Your task to perform on an android device: Search for "alienware aurora" on costco, select the first entry, add it to the cart, then select checkout. Image 0: 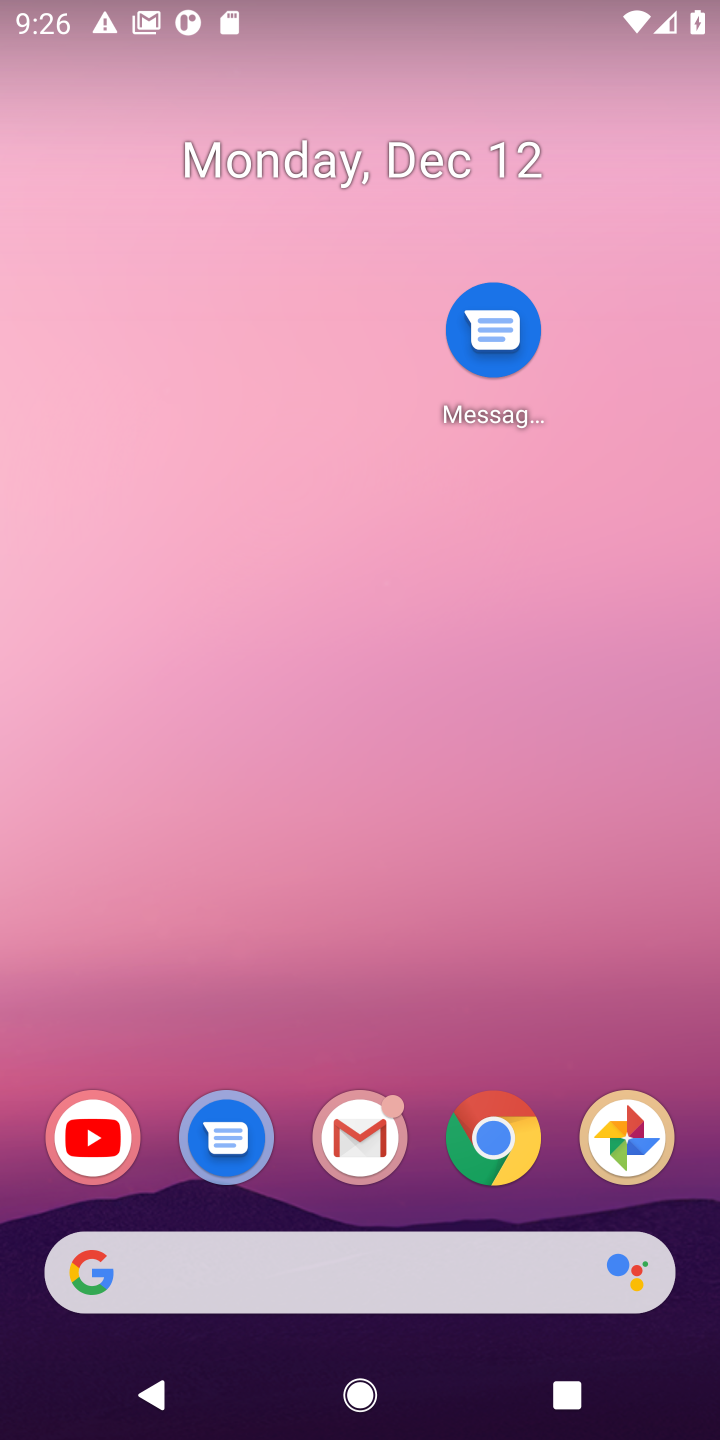
Step 0: drag from (293, 983) to (291, 388)
Your task to perform on an android device: Search for "alienware aurora" on costco, select the first entry, add it to the cart, then select checkout. Image 1: 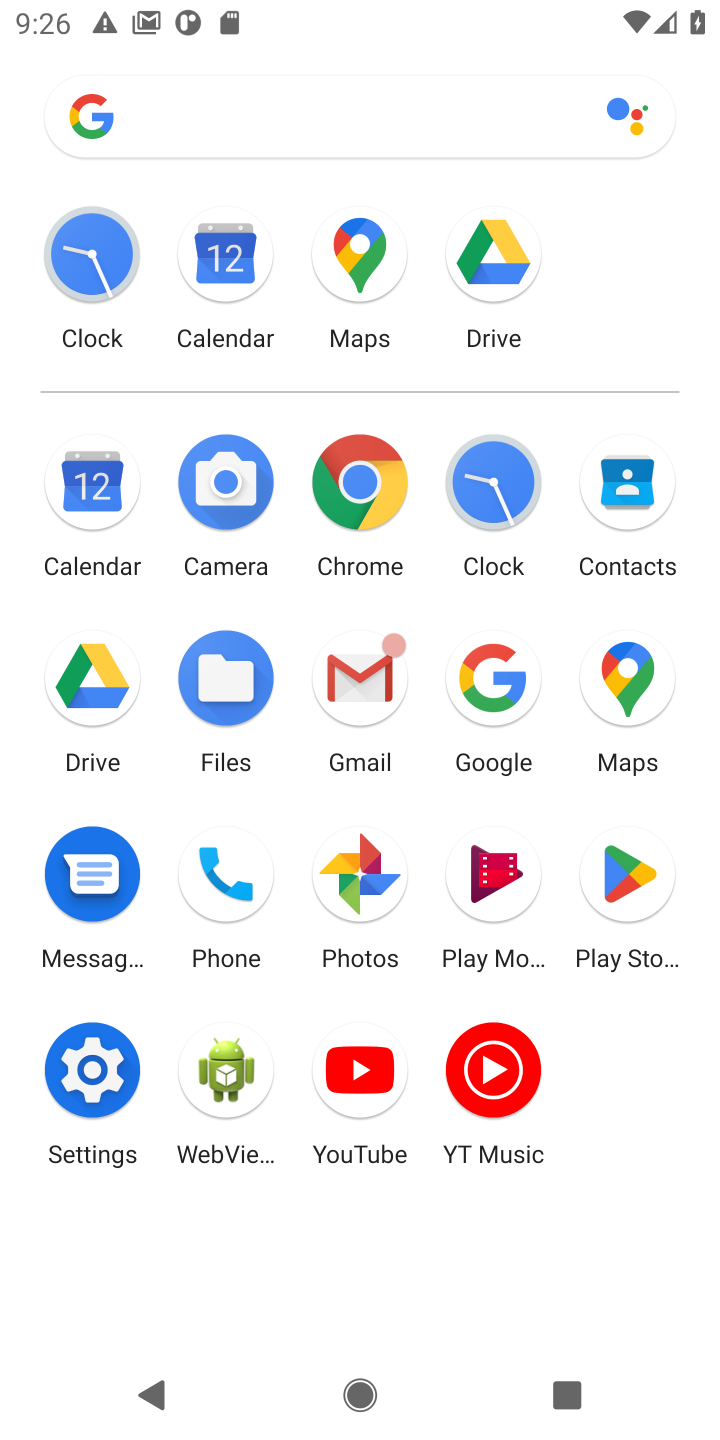
Step 1: click (480, 677)
Your task to perform on an android device: Search for "alienware aurora" on costco, select the first entry, add it to the cart, then select checkout. Image 2: 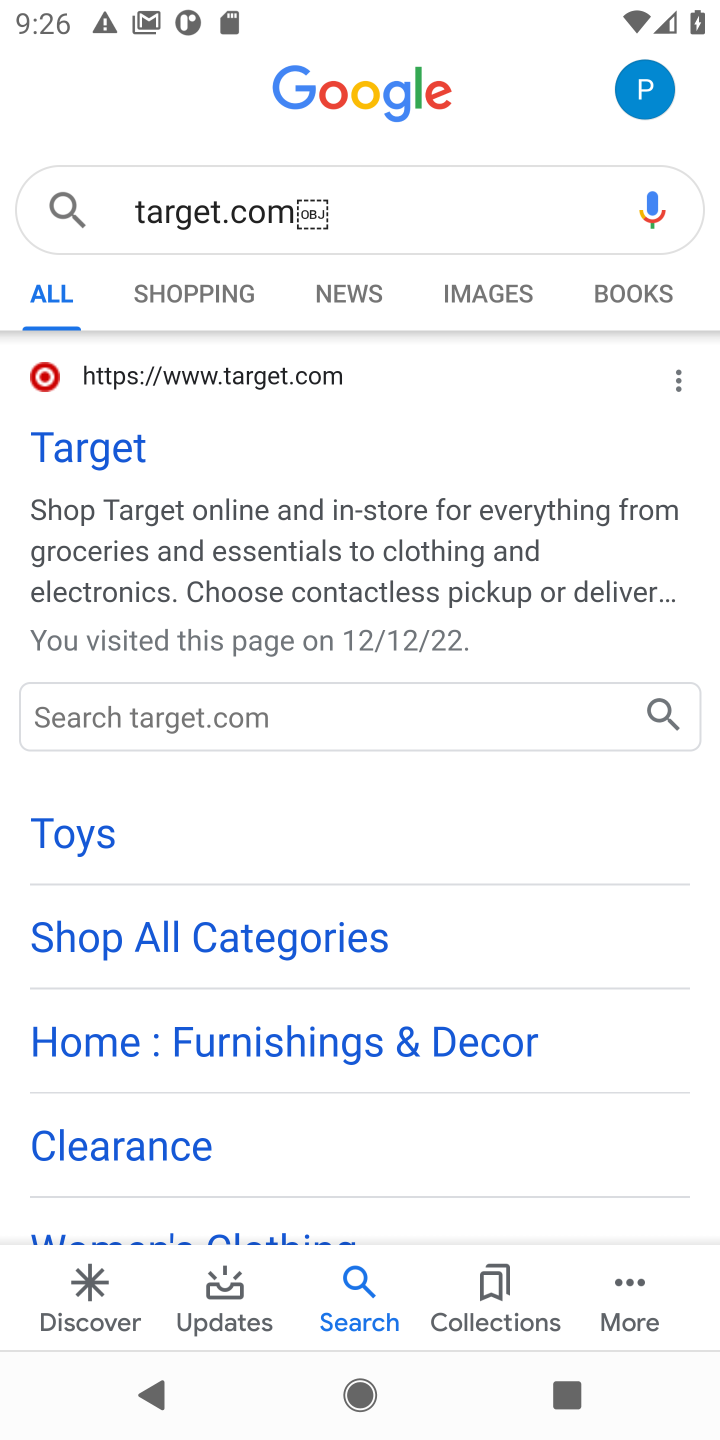
Step 2: click (197, 222)
Your task to perform on an android device: Search for "alienware aurora" on costco, select the first entry, add it to the cart, then select checkout. Image 3: 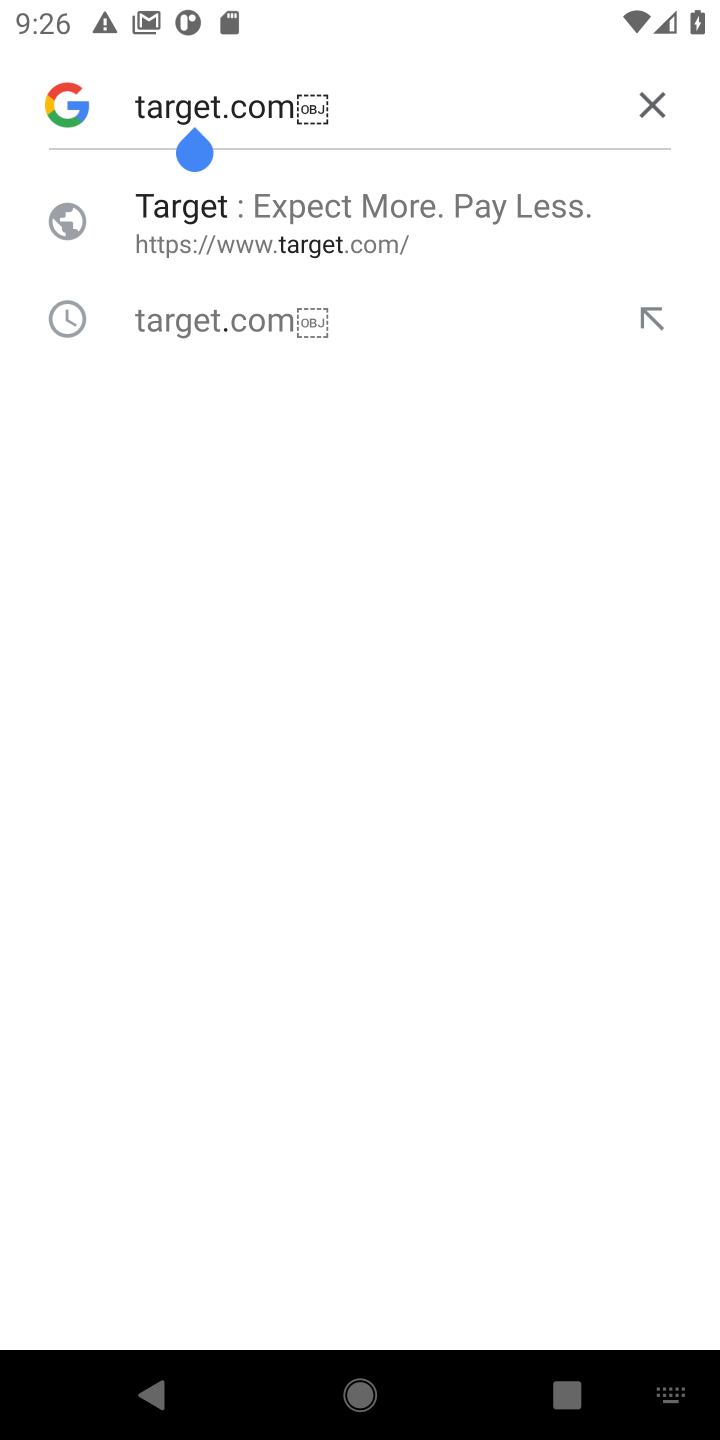
Step 3: click (657, 96)
Your task to perform on an android device: Search for "alienware aurora" on costco, select the first entry, add it to the cart, then select checkout. Image 4: 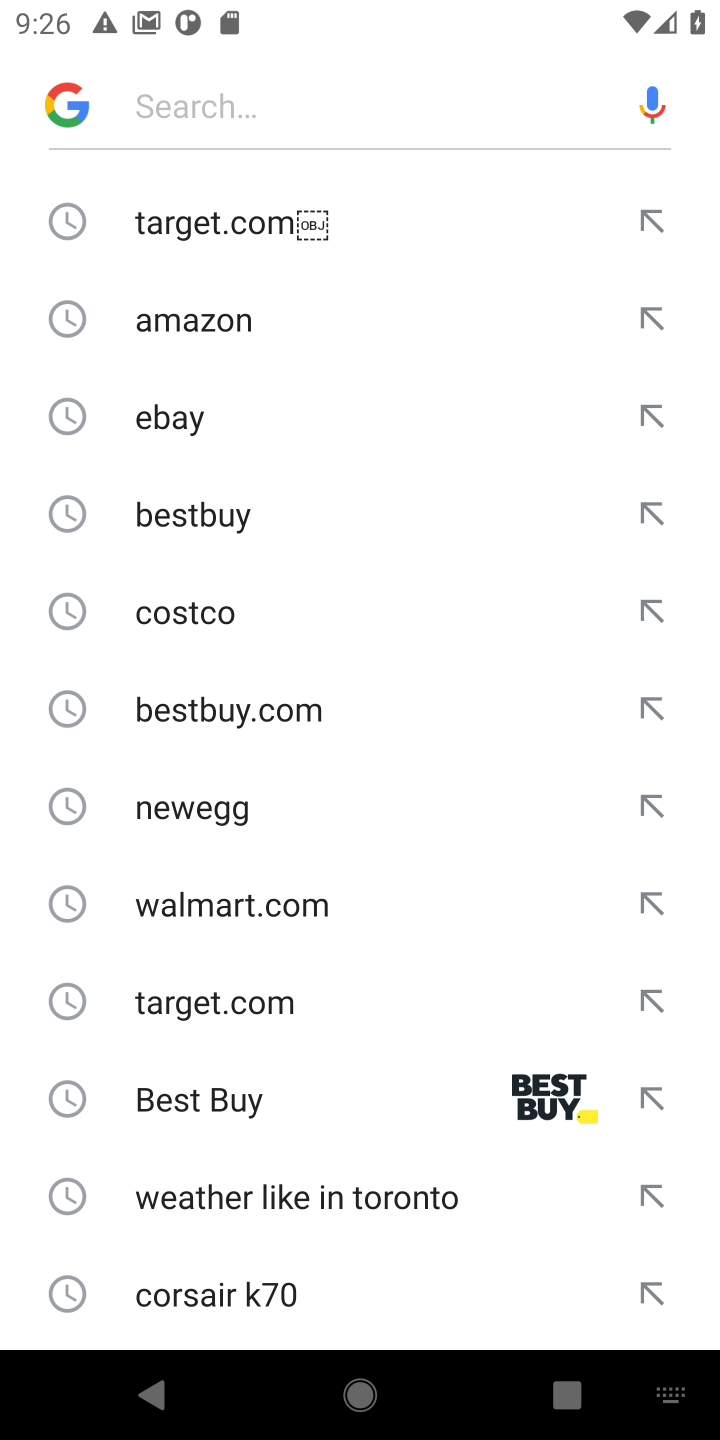
Step 4: click (185, 625)
Your task to perform on an android device: Search for "alienware aurora" on costco, select the first entry, add it to the cart, then select checkout. Image 5: 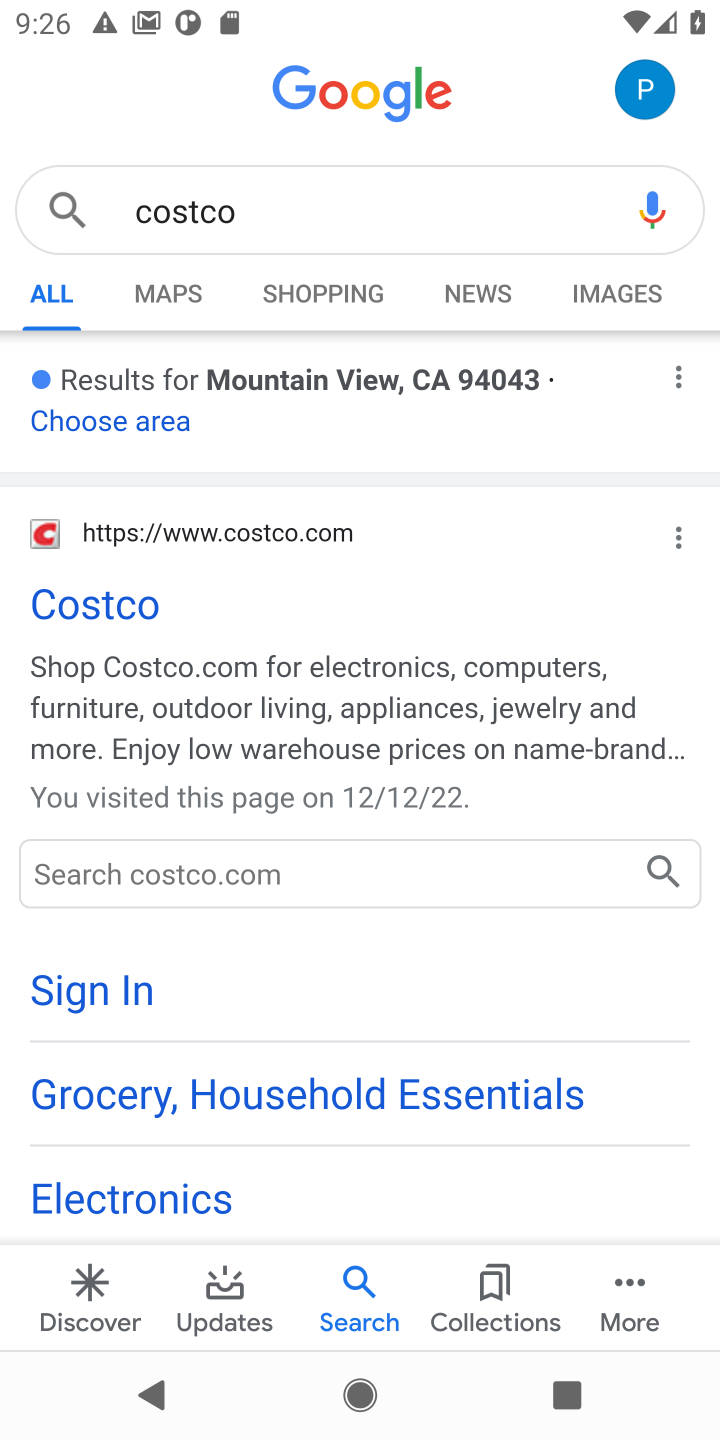
Step 5: click (151, 607)
Your task to perform on an android device: Search for "alienware aurora" on costco, select the first entry, add it to the cart, then select checkout. Image 6: 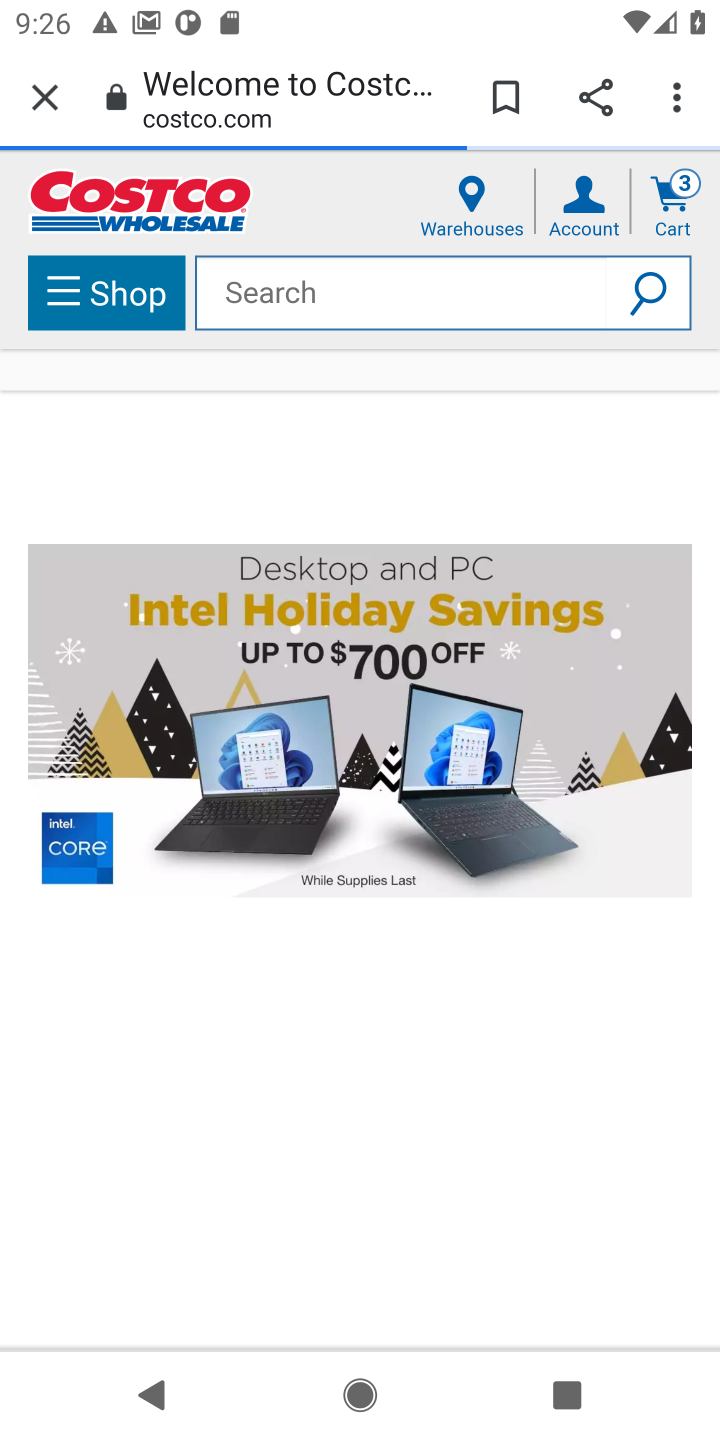
Step 6: click (257, 294)
Your task to perform on an android device: Search for "alienware aurora" on costco, select the first entry, add it to the cart, then select checkout. Image 7: 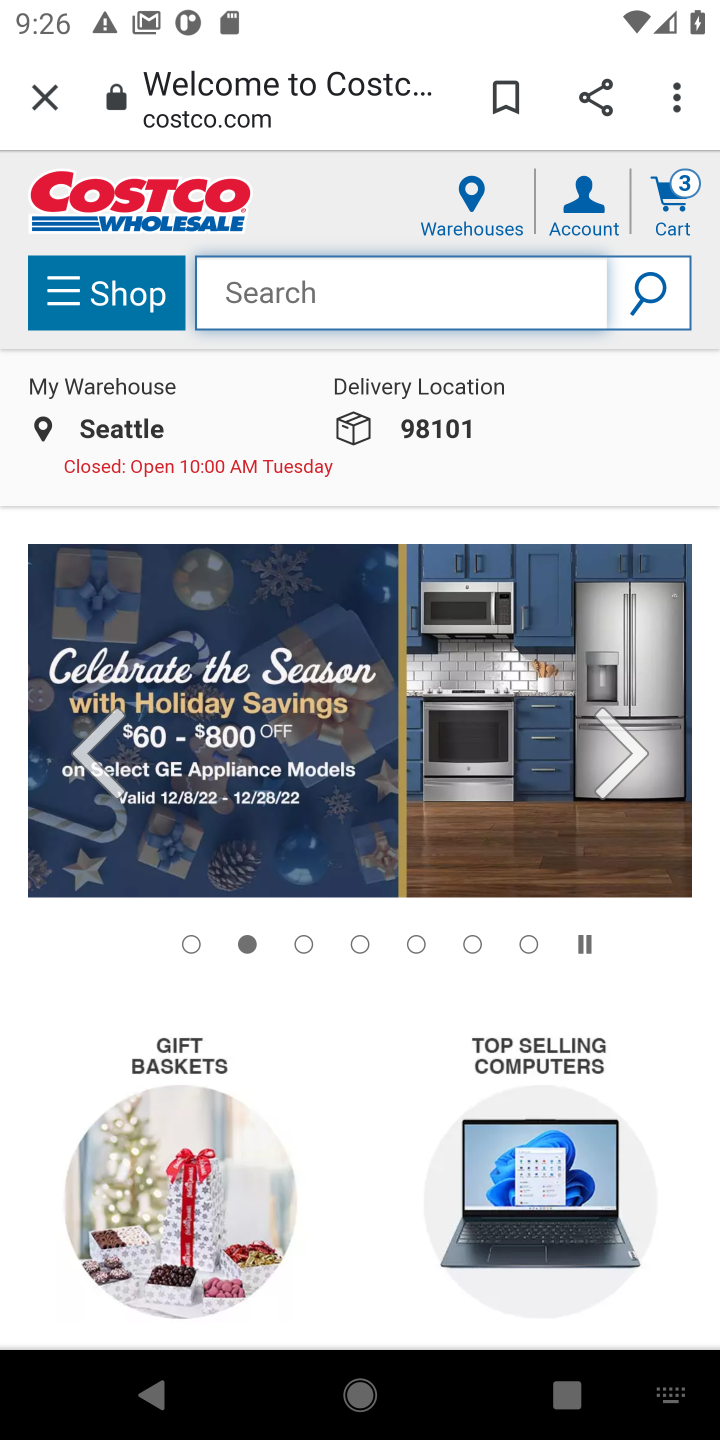
Step 7: type "alienware aurora"
Your task to perform on an android device: Search for "alienware aurora" on costco, select the first entry, add it to the cart, then select checkout. Image 8: 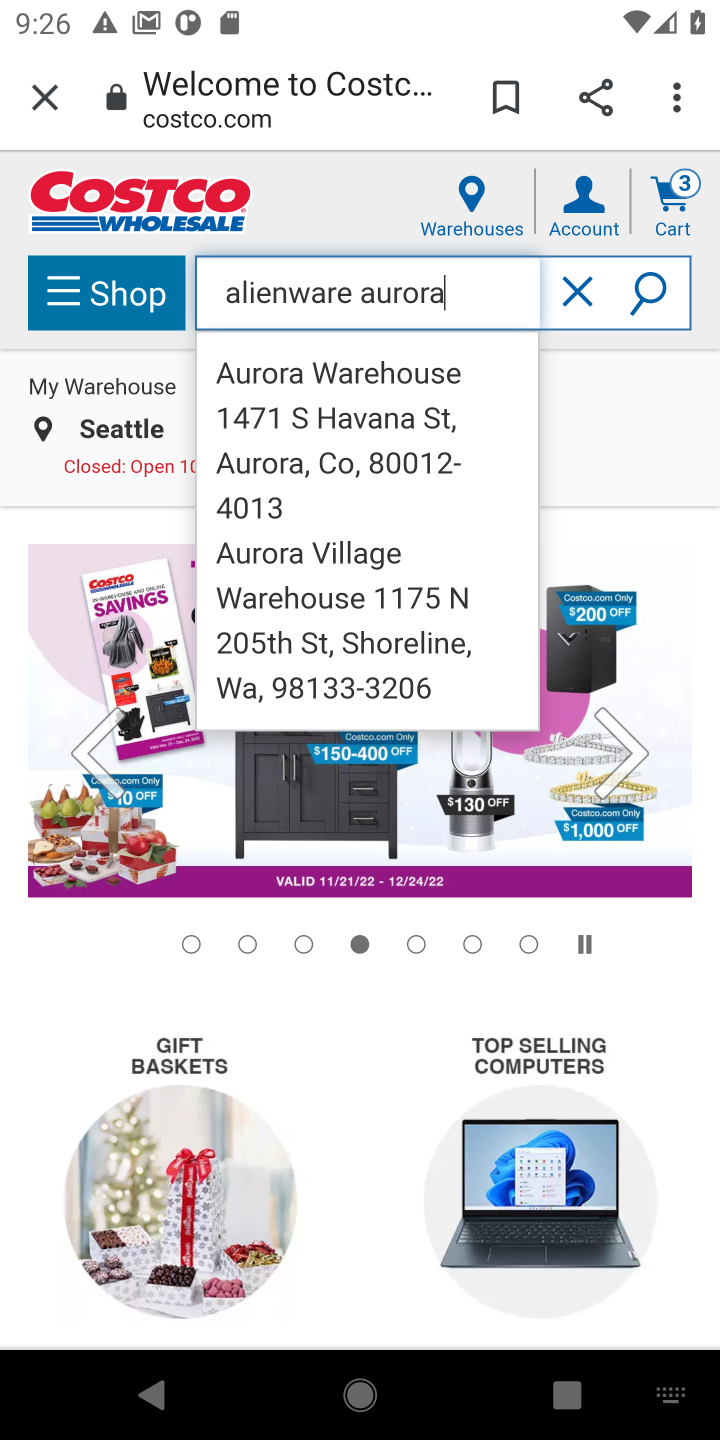
Step 8: click (646, 287)
Your task to perform on an android device: Search for "alienware aurora" on costco, select the first entry, add it to the cart, then select checkout. Image 9: 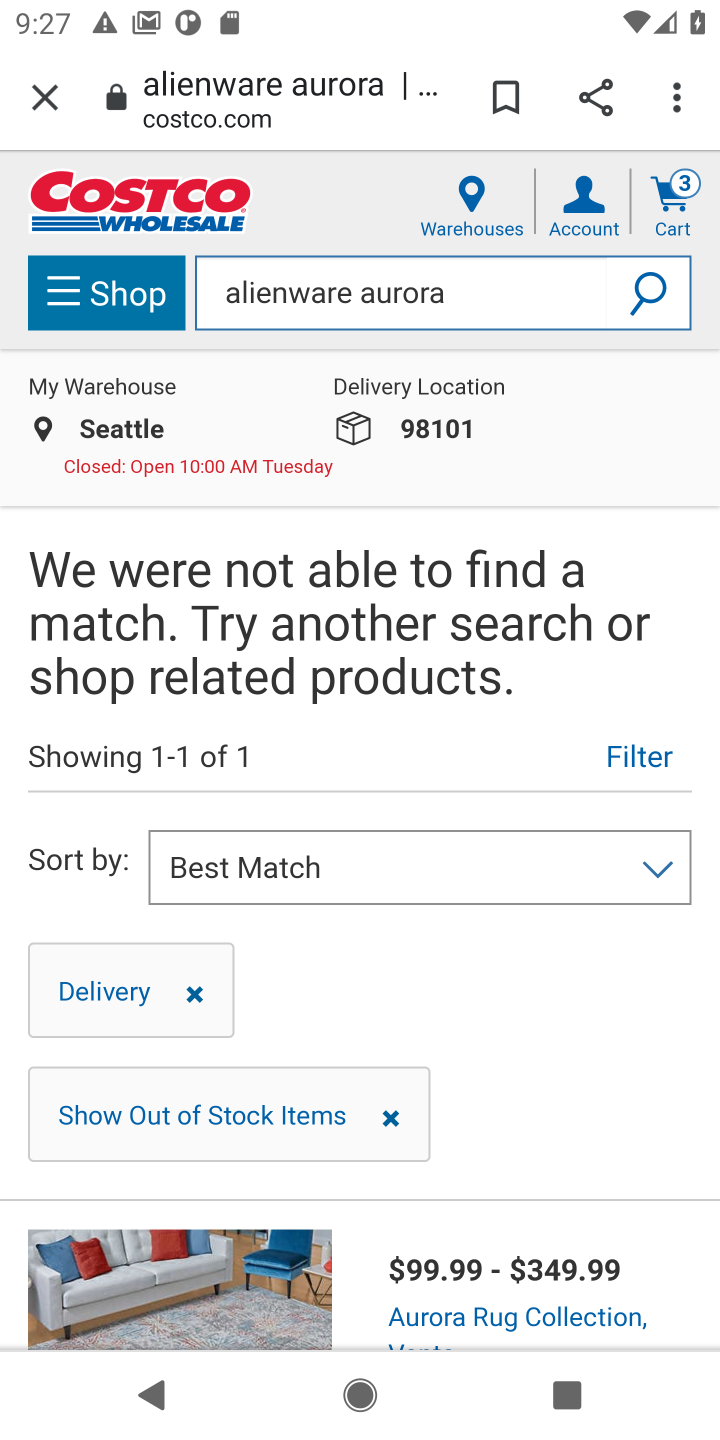
Step 9: drag from (405, 1132) to (405, 603)
Your task to perform on an android device: Search for "alienware aurora" on costco, select the first entry, add it to the cart, then select checkout. Image 10: 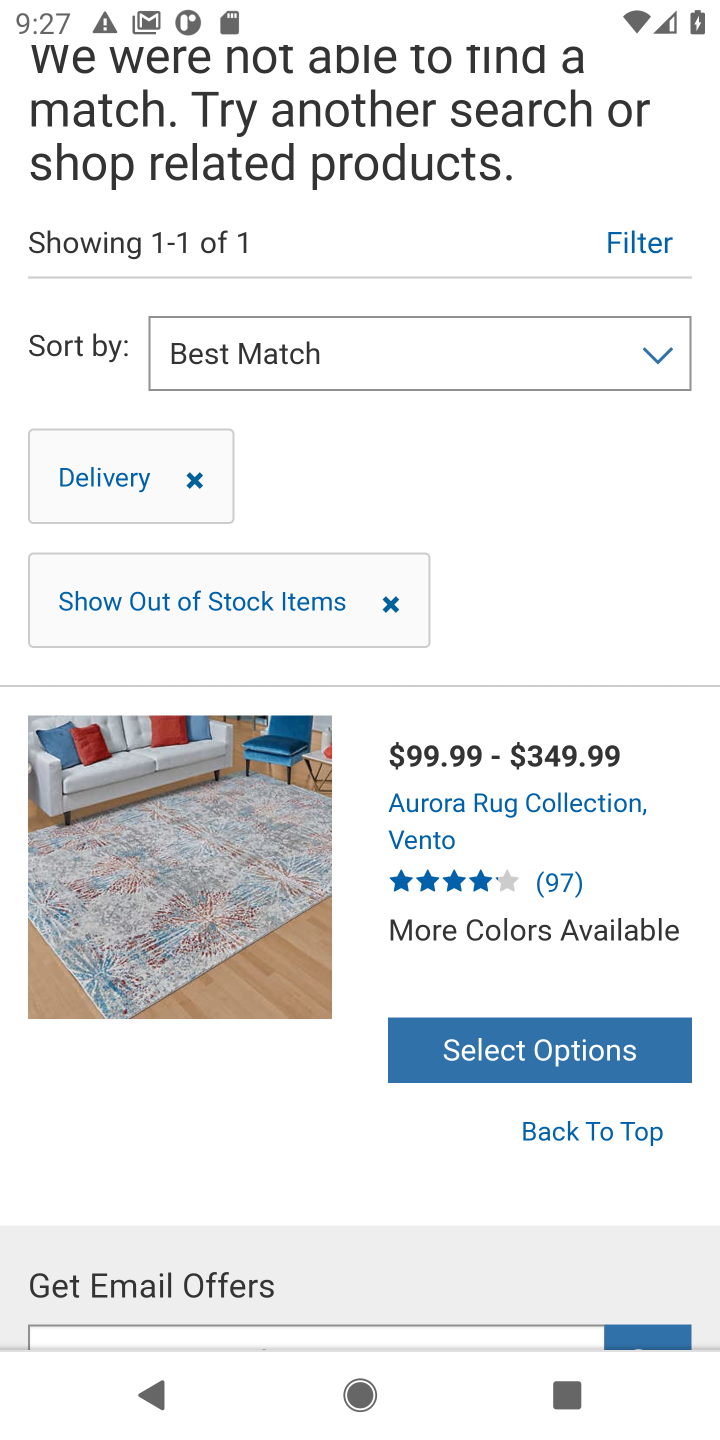
Step 10: drag from (282, 925) to (280, 579)
Your task to perform on an android device: Search for "alienware aurora" on costco, select the first entry, add it to the cart, then select checkout. Image 11: 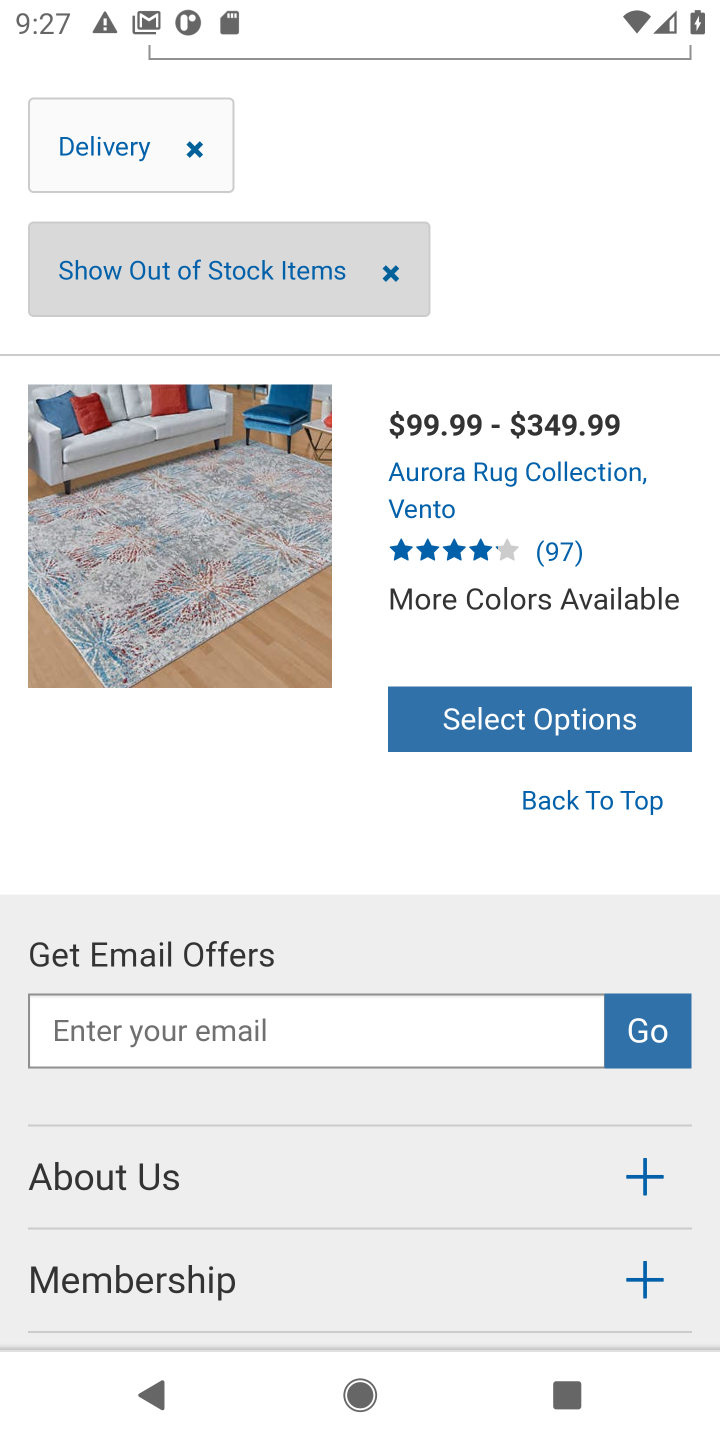
Step 11: click (558, 713)
Your task to perform on an android device: Search for "alienware aurora" on costco, select the first entry, add it to the cart, then select checkout. Image 12: 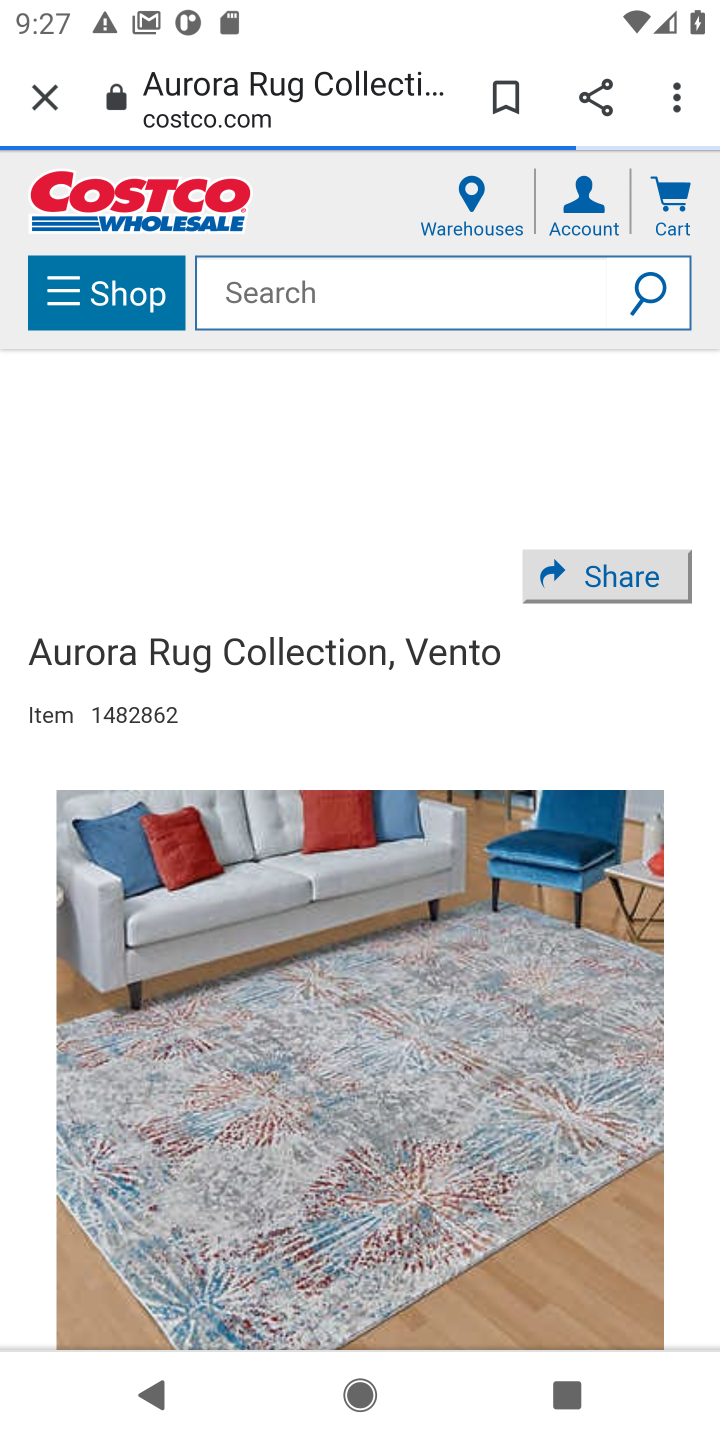
Step 12: task complete